Your task to perform on an android device: toggle show notifications on the lock screen Image 0: 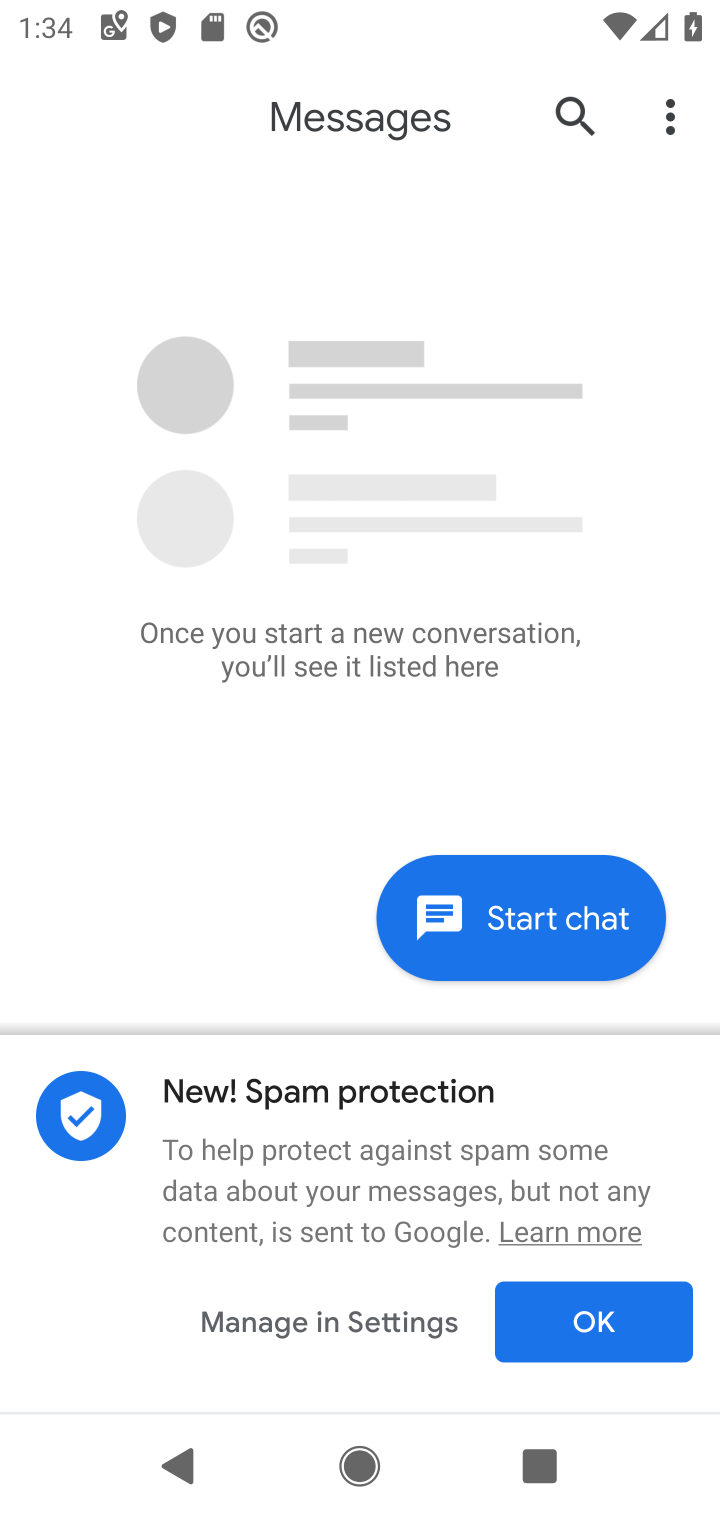
Step 0: press home button
Your task to perform on an android device: toggle show notifications on the lock screen Image 1: 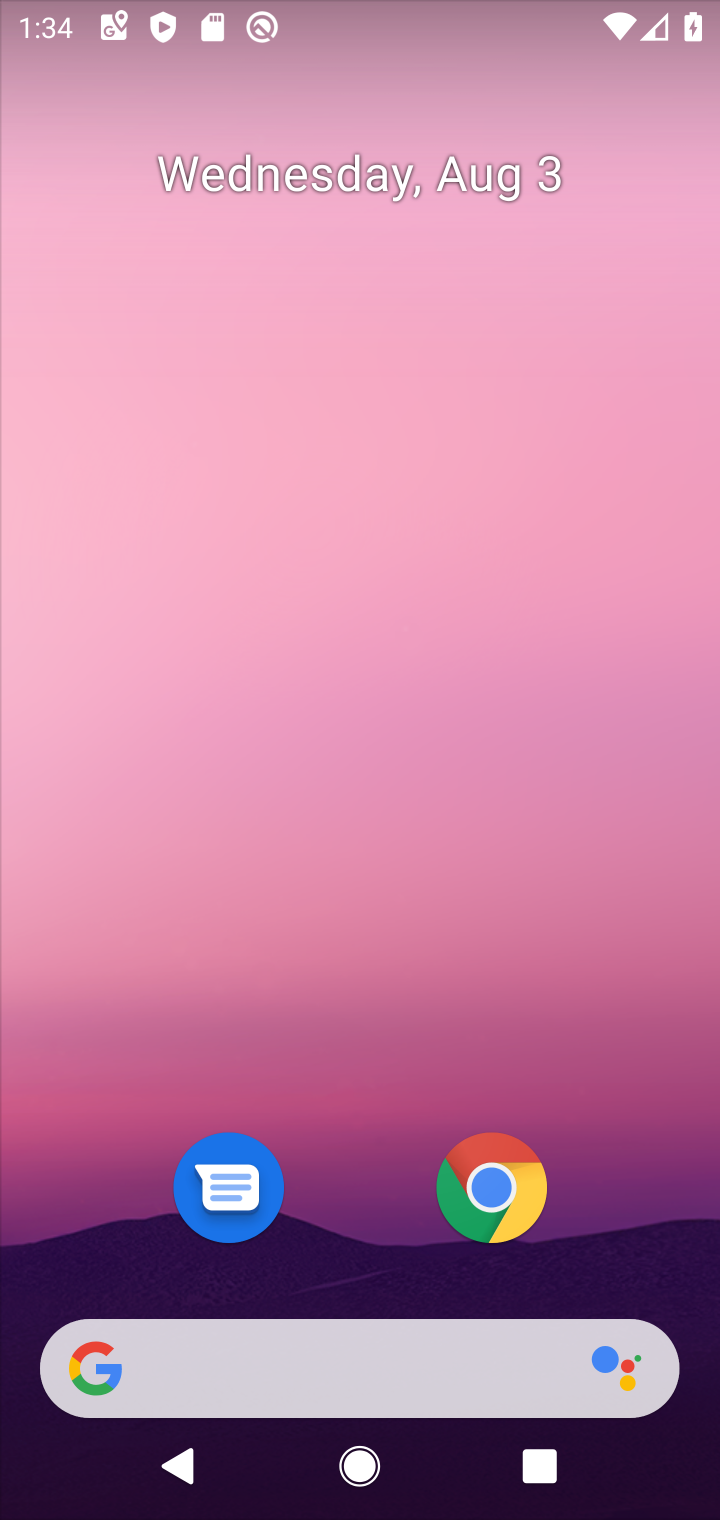
Step 1: drag from (382, 1112) to (425, 77)
Your task to perform on an android device: toggle show notifications on the lock screen Image 2: 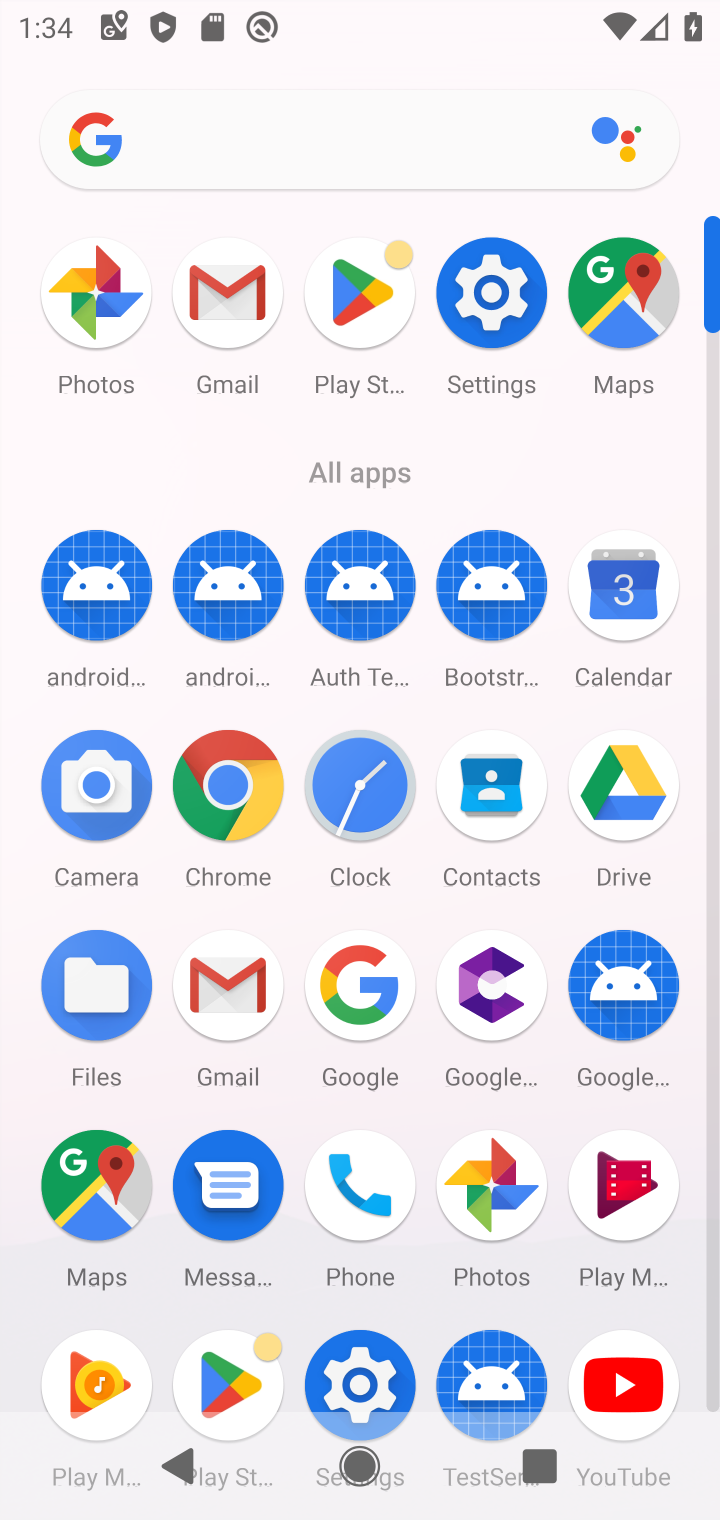
Step 2: click (472, 294)
Your task to perform on an android device: toggle show notifications on the lock screen Image 3: 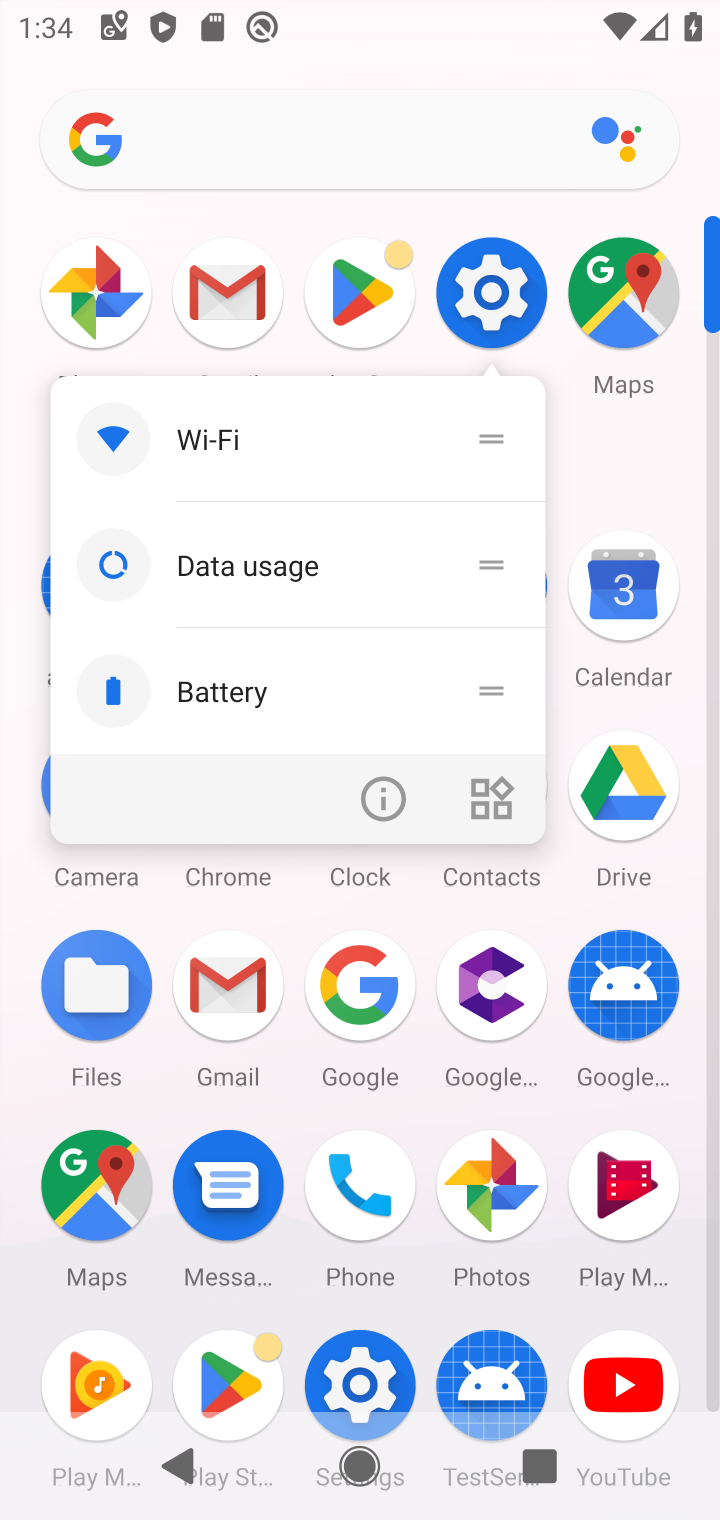
Step 3: click (472, 291)
Your task to perform on an android device: toggle show notifications on the lock screen Image 4: 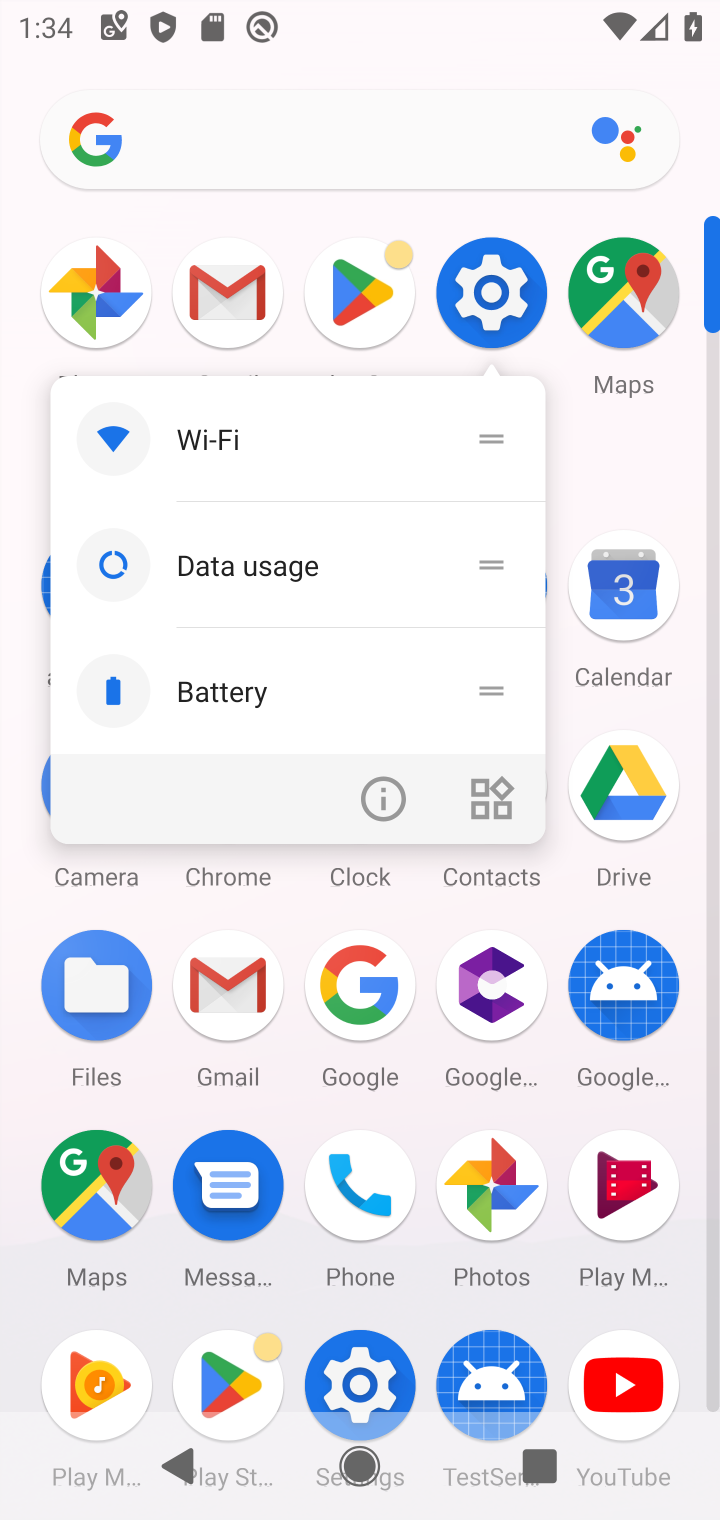
Step 4: click (472, 291)
Your task to perform on an android device: toggle show notifications on the lock screen Image 5: 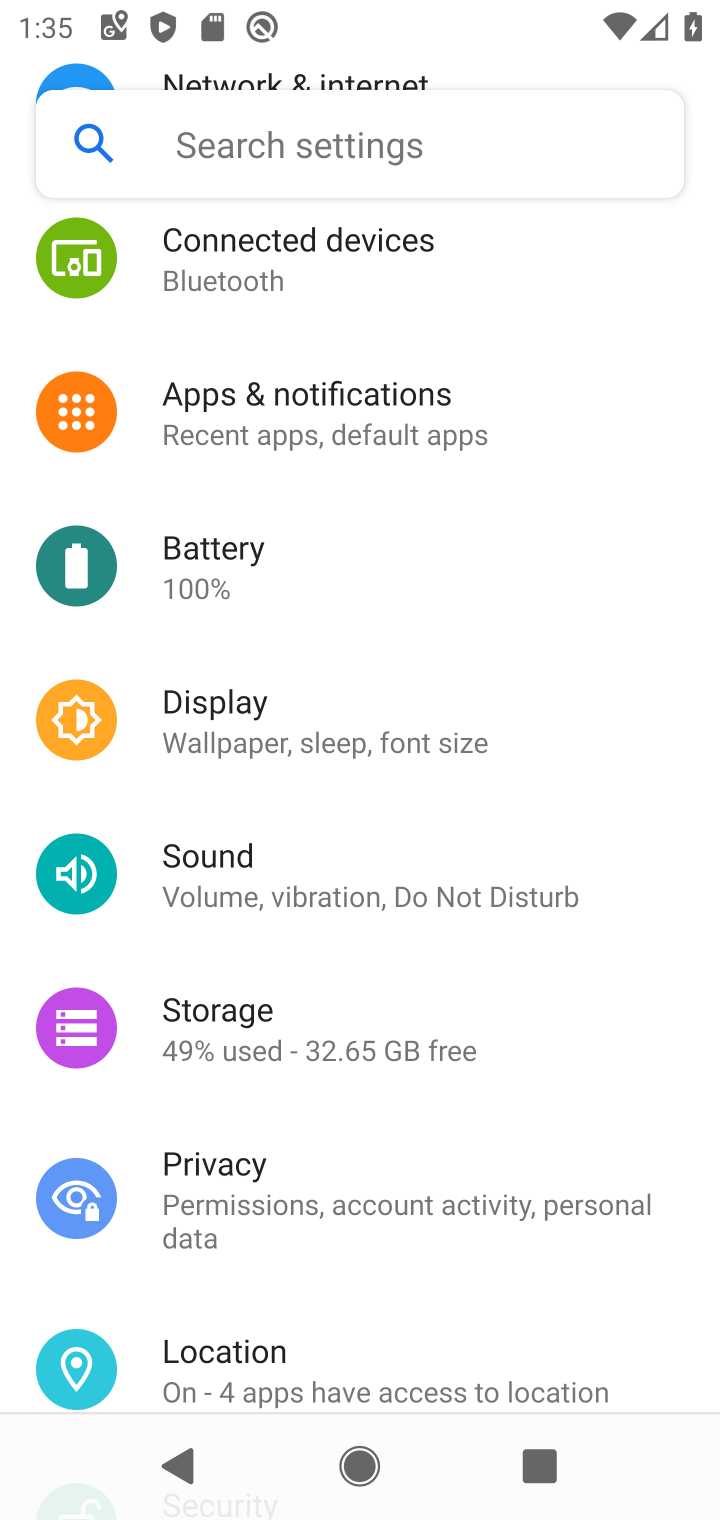
Step 5: click (386, 416)
Your task to perform on an android device: toggle show notifications on the lock screen Image 6: 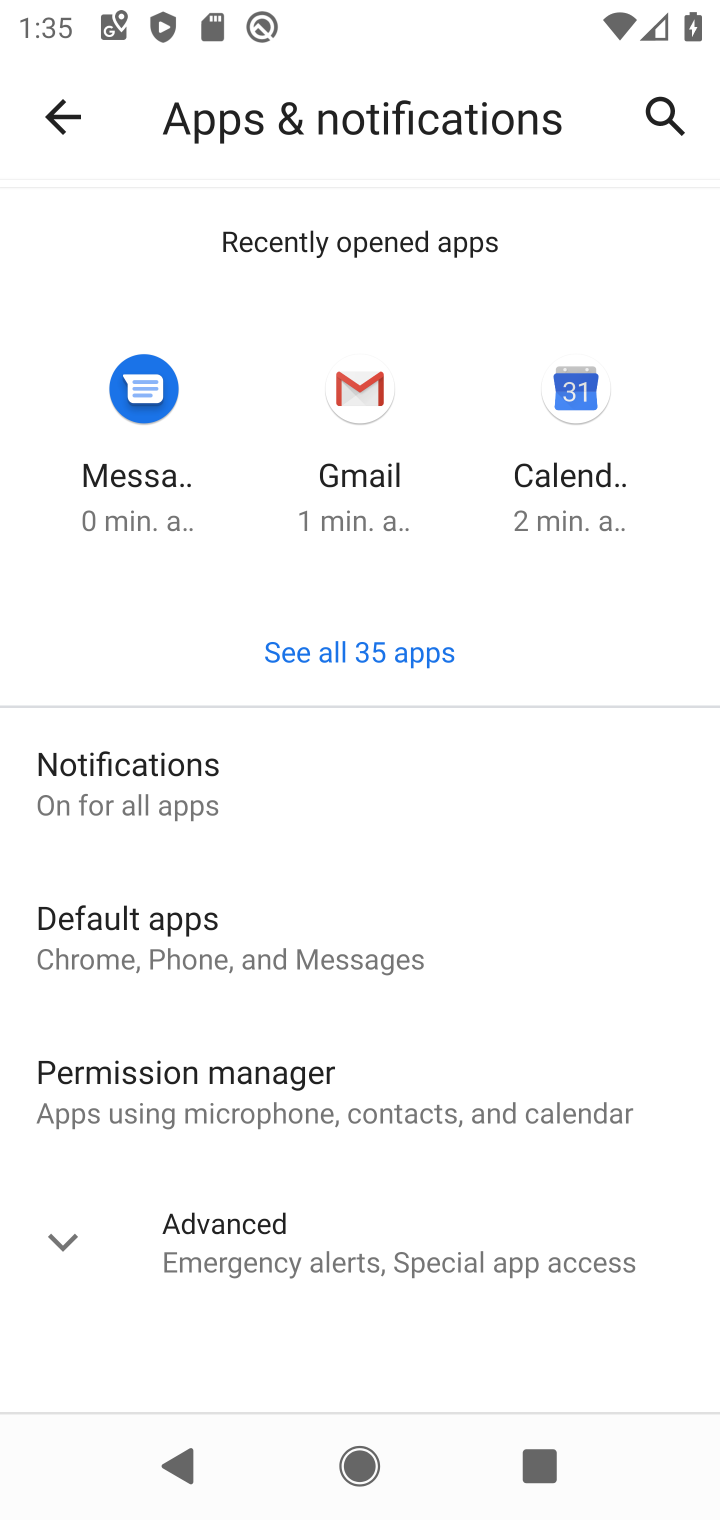
Step 6: click (155, 798)
Your task to perform on an android device: toggle show notifications on the lock screen Image 7: 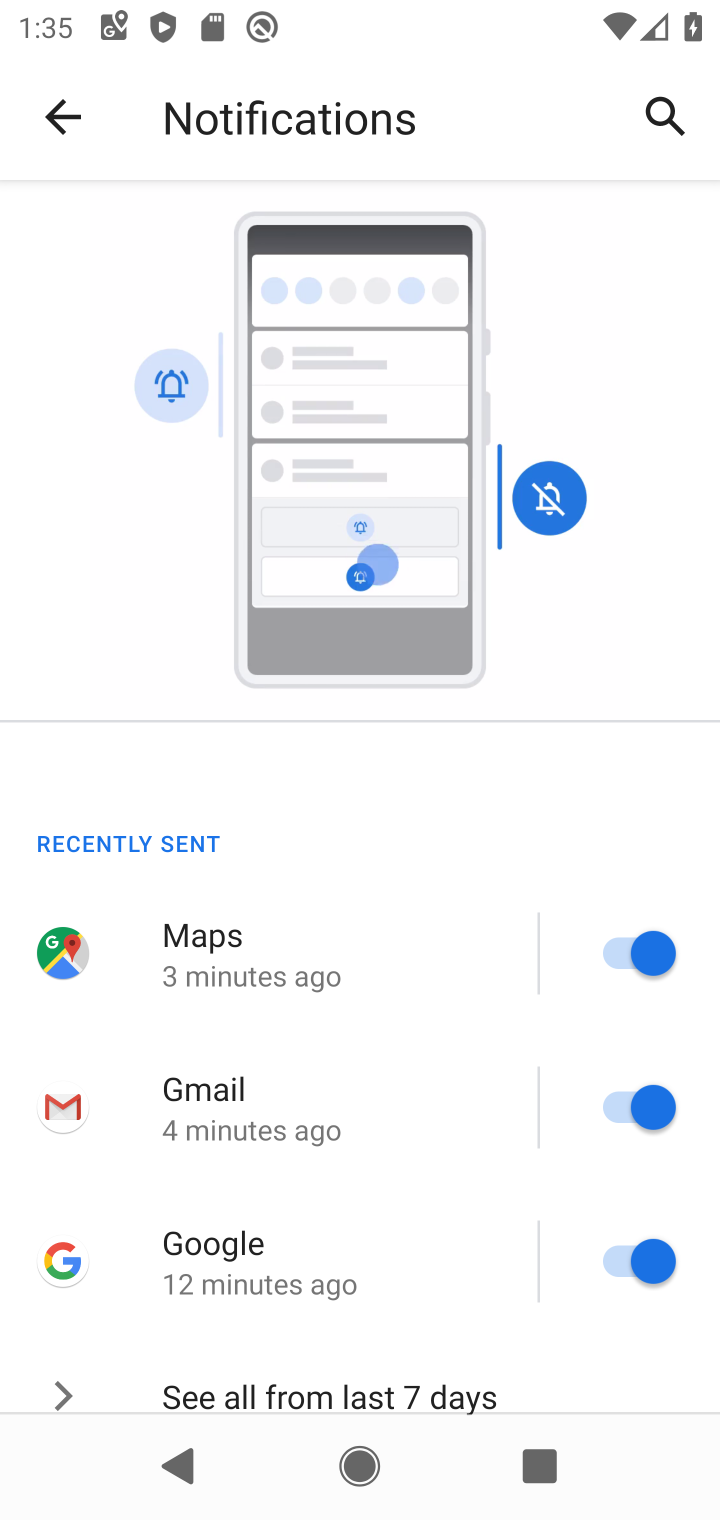
Step 7: drag from (424, 990) to (407, 373)
Your task to perform on an android device: toggle show notifications on the lock screen Image 8: 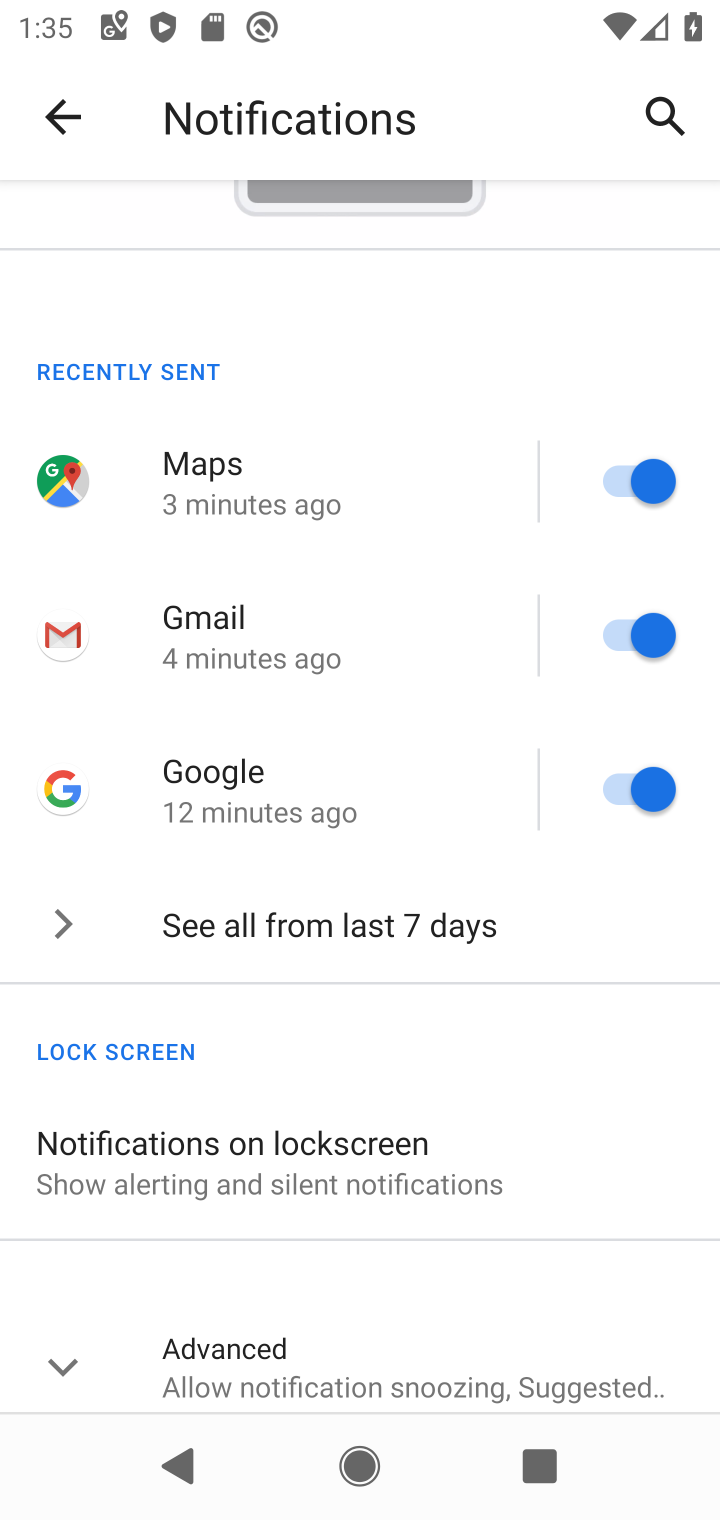
Step 8: click (371, 1153)
Your task to perform on an android device: toggle show notifications on the lock screen Image 9: 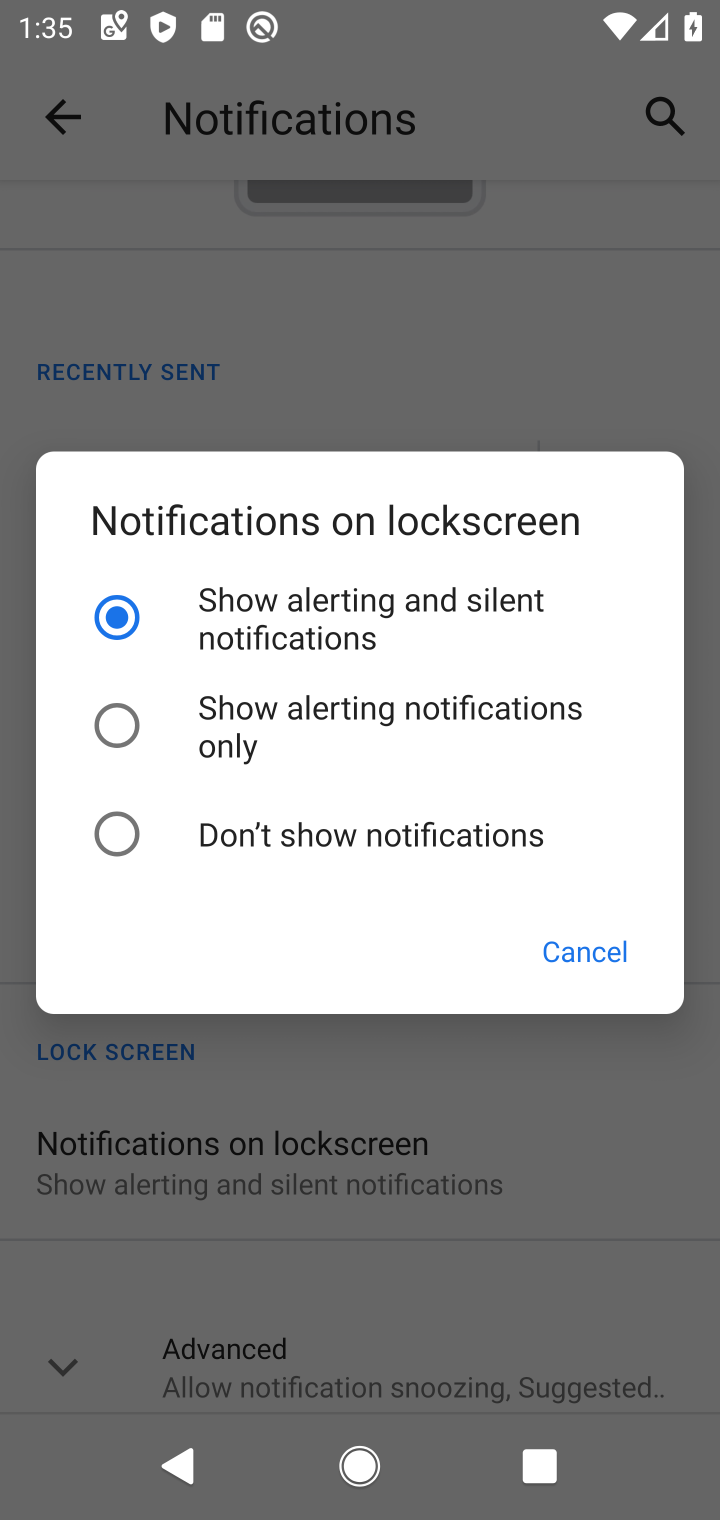
Step 9: click (115, 830)
Your task to perform on an android device: toggle show notifications on the lock screen Image 10: 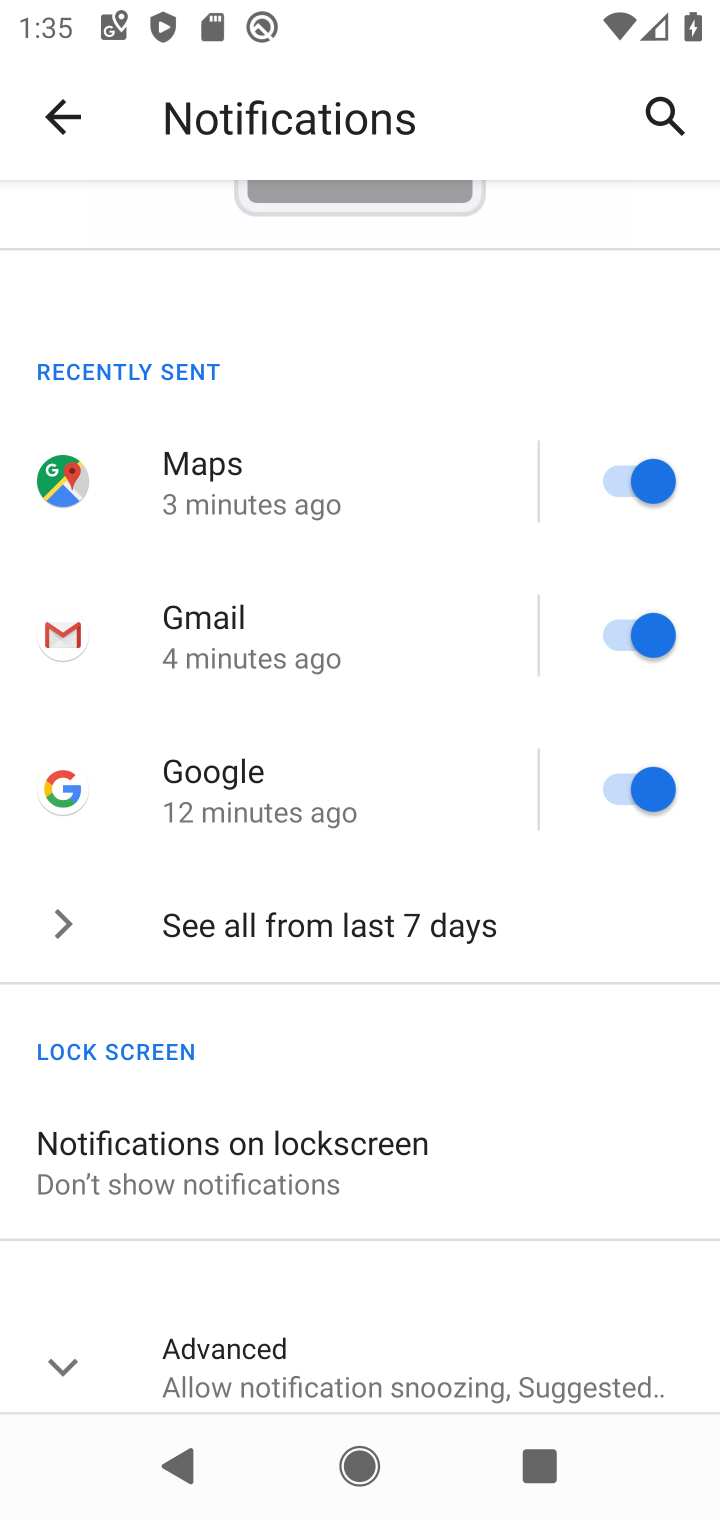
Step 10: task complete